Your task to perform on an android device: turn off wifi Image 0: 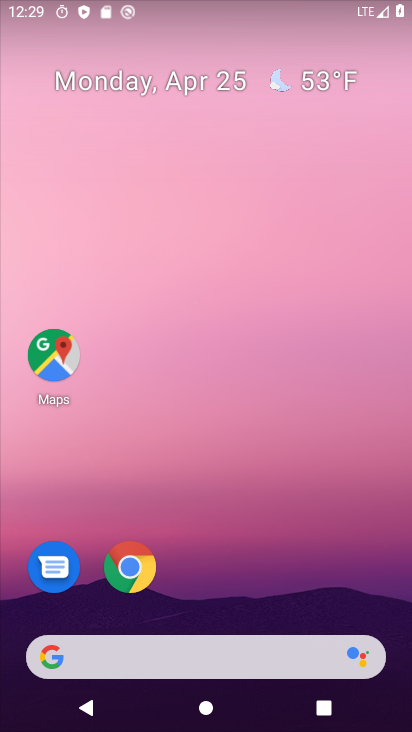
Step 0: drag from (333, 532) to (305, 1)
Your task to perform on an android device: turn off wifi Image 1: 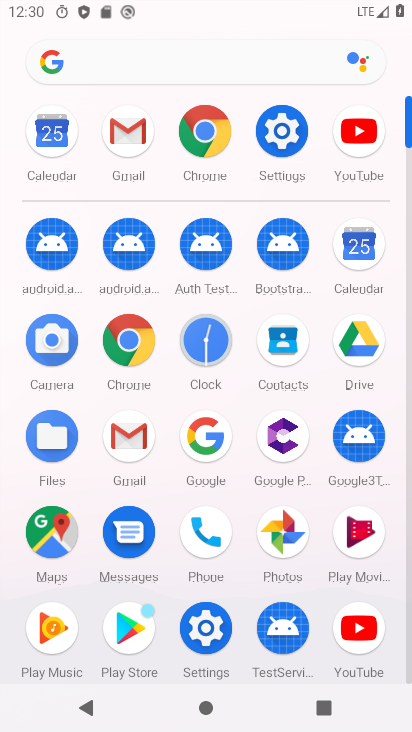
Step 1: click (291, 131)
Your task to perform on an android device: turn off wifi Image 2: 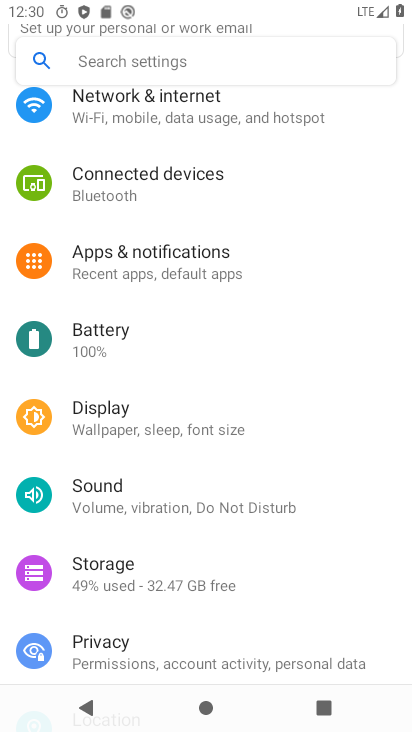
Step 2: click (276, 109)
Your task to perform on an android device: turn off wifi Image 3: 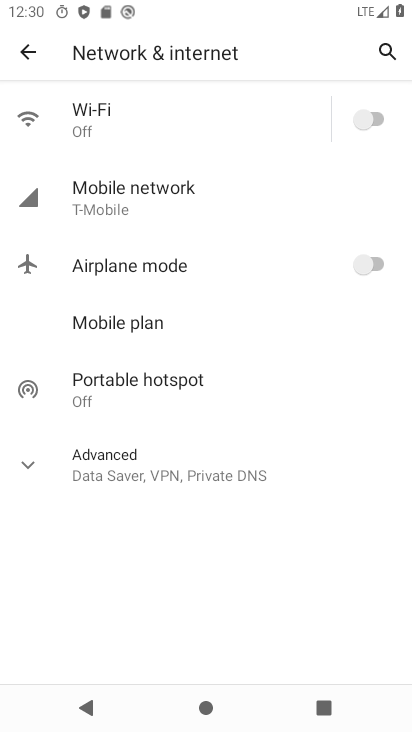
Step 3: task complete